Your task to perform on an android device: Go to eBay Image 0: 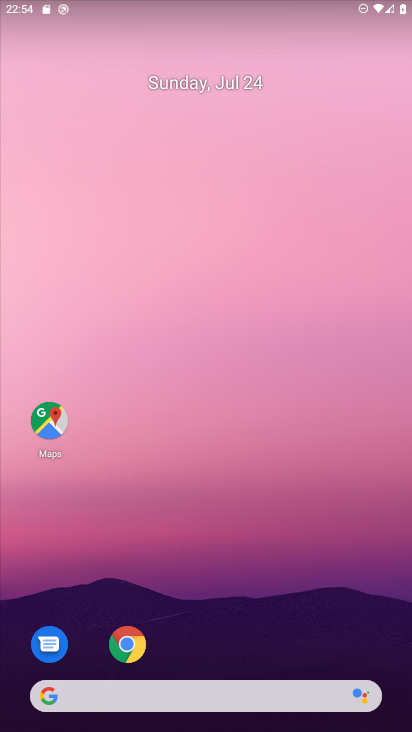
Step 0: click (124, 642)
Your task to perform on an android device: Go to eBay Image 1: 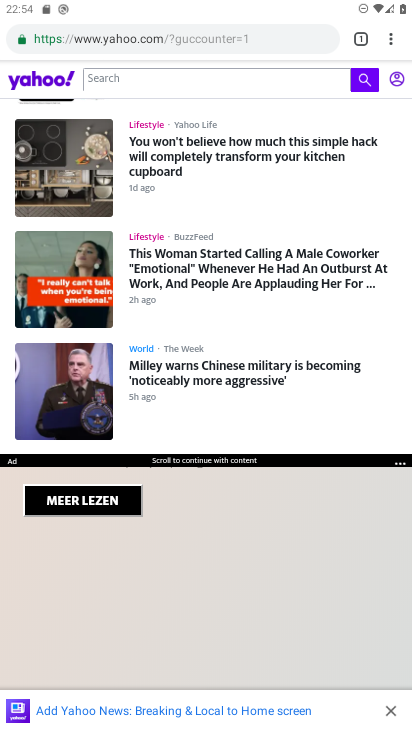
Step 1: click (249, 38)
Your task to perform on an android device: Go to eBay Image 2: 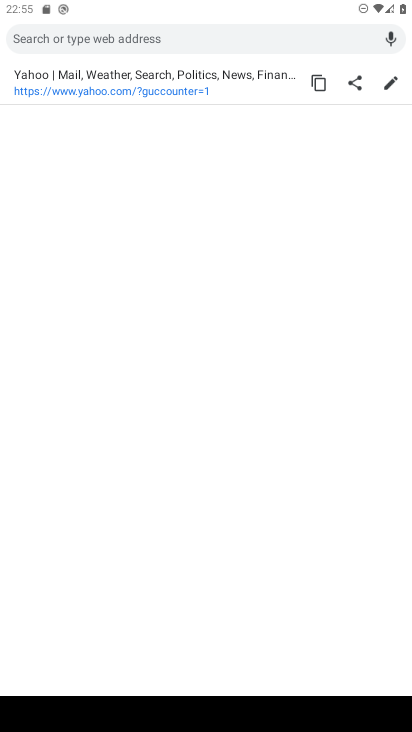
Step 2: type "eBay"
Your task to perform on an android device: Go to eBay Image 3: 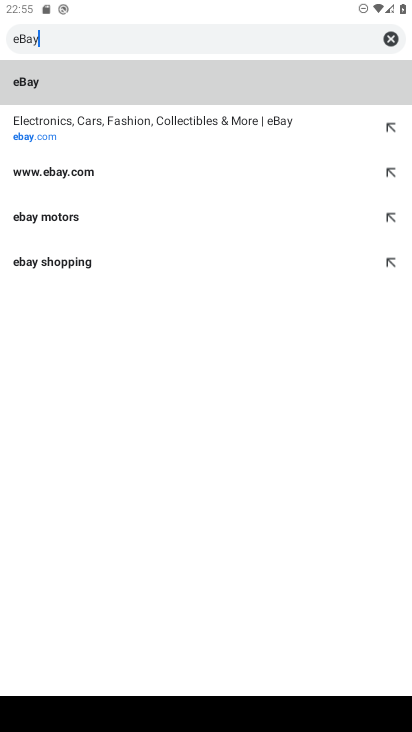
Step 3: click (56, 81)
Your task to perform on an android device: Go to eBay Image 4: 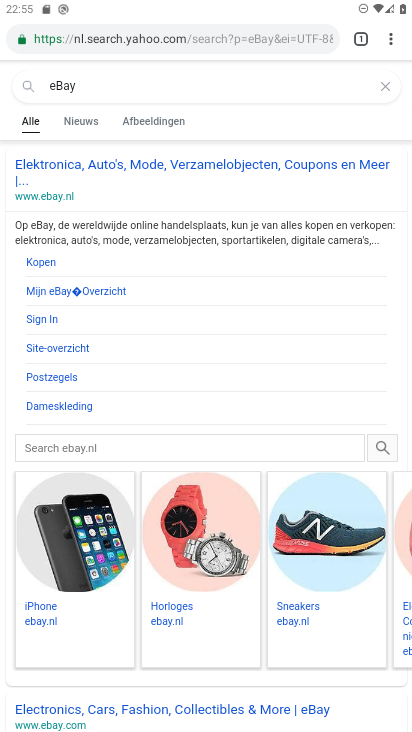
Step 4: click (61, 192)
Your task to perform on an android device: Go to eBay Image 5: 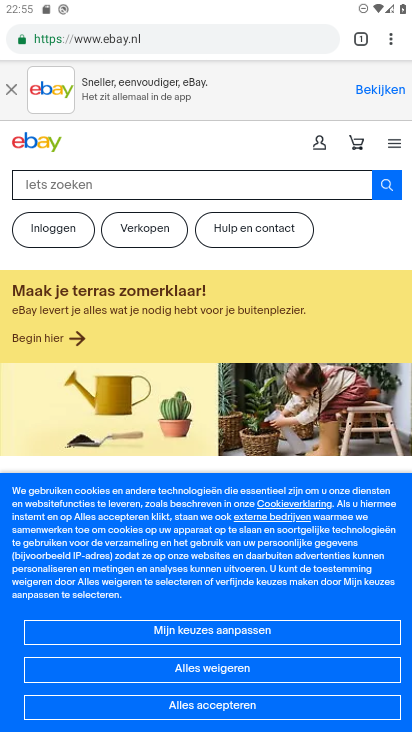
Step 5: task complete